Your task to perform on an android device: open app "Fetch Rewards" (install if not already installed) and enter user name: "Westwood@yahoo.com" and password: "qualifying" Image 0: 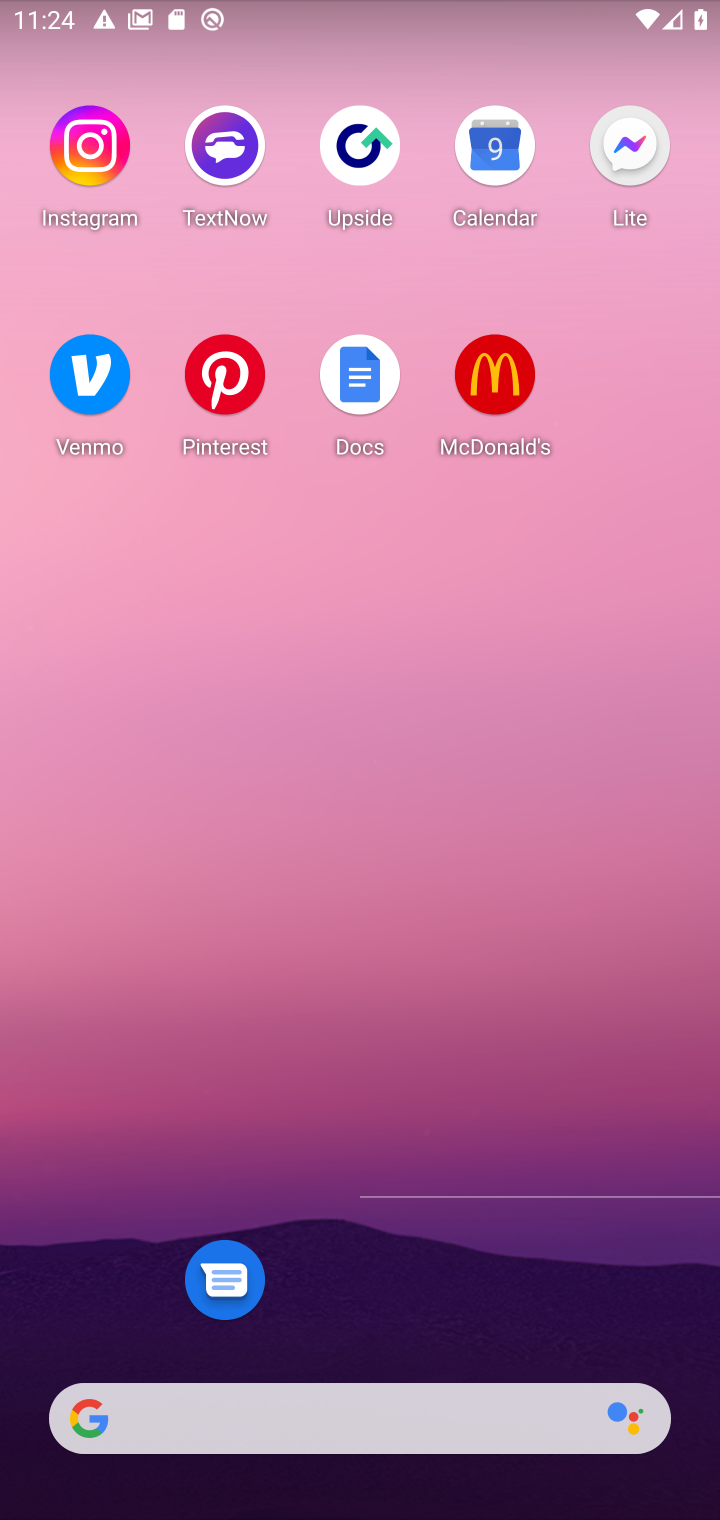
Step 0: drag from (318, 1265) to (329, 89)
Your task to perform on an android device: open app "Fetch Rewards" (install if not already installed) and enter user name: "Westwood@yahoo.com" and password: "qualifying" Image 1: 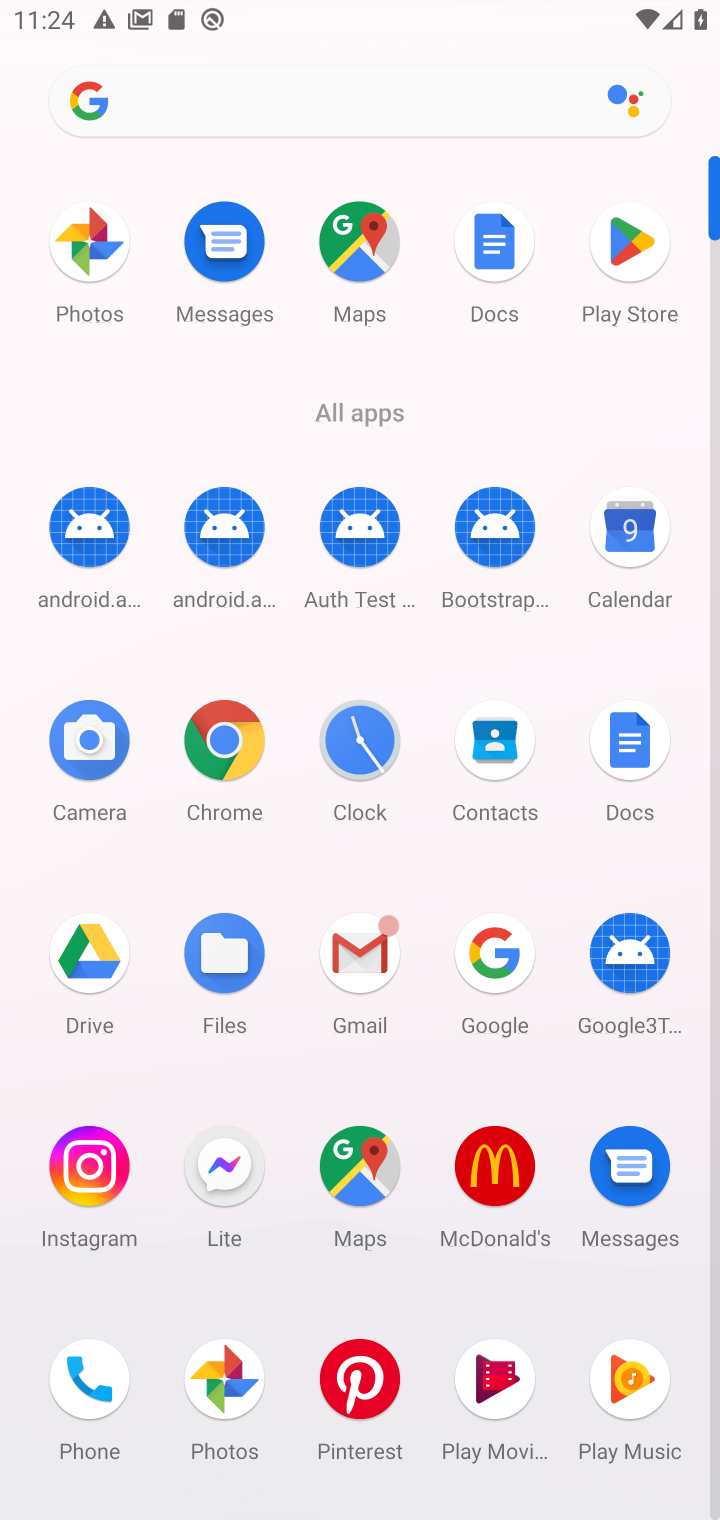
Step 1: click (615, 246)
Your task to perform on an android device: open app "Fetch Rewards" (install if not already installed) and enter user name: "Westwood@yahoo.com" and password: "qualifying" Image 2: 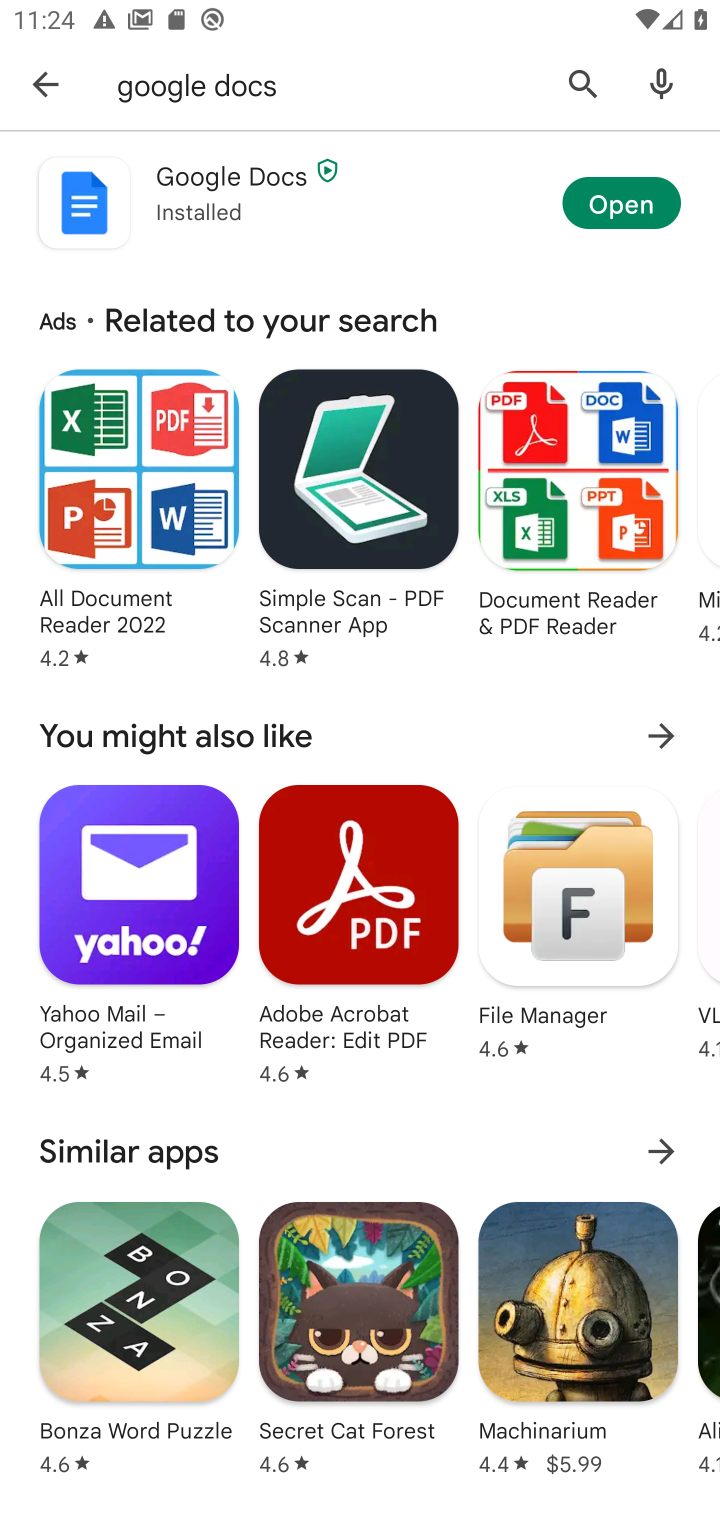
Step 2: click (37, 67)
Your task to perform on an android device: open app "Fetch Rewards" (install if not already installed) and enter user name: "Westwood@yahoo.com" and password: "qualifying" Image 3: 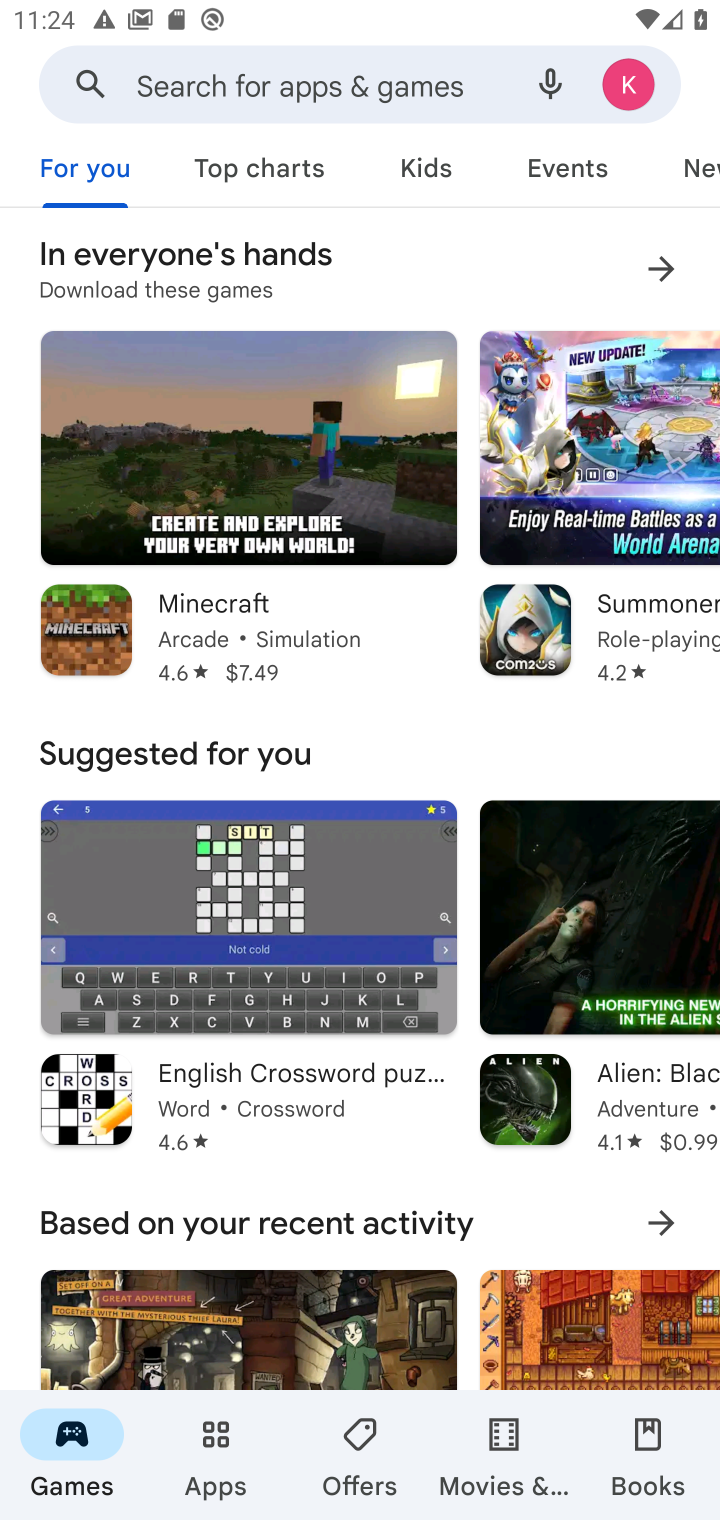
Step 3: click (227, 77)
Your task to perform on an android device: open app "Fetch Rewards" (install if not already installed) and enter user name: "Westwood@yahoo.com" and password: "qualifying" Image 4: 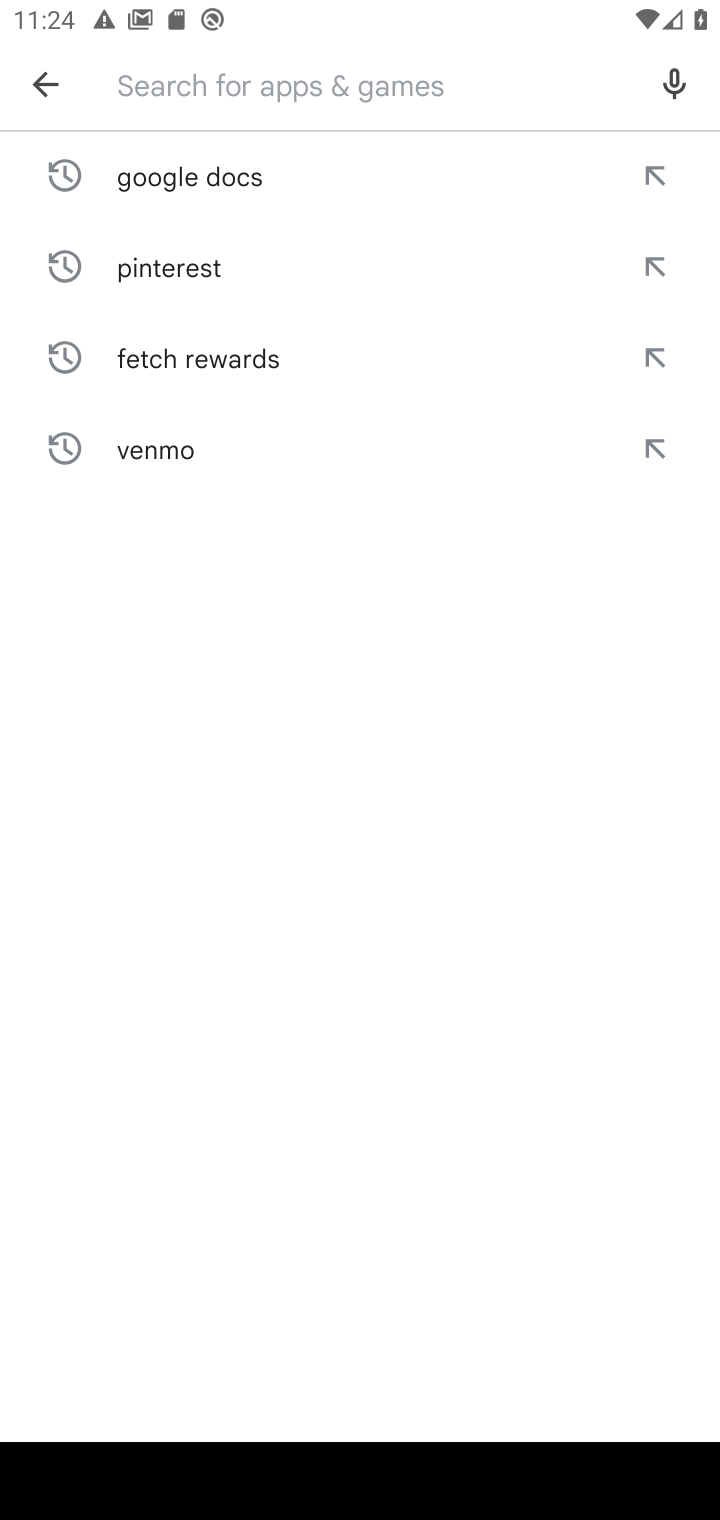
Step 4: type "Fetch Rewards"
Your task to perform on an android device: open app "Fetch Rewards" (install if not already installed) and enter user name: "Westwood@yahoo.com" and password: "qualifying" Image 5: 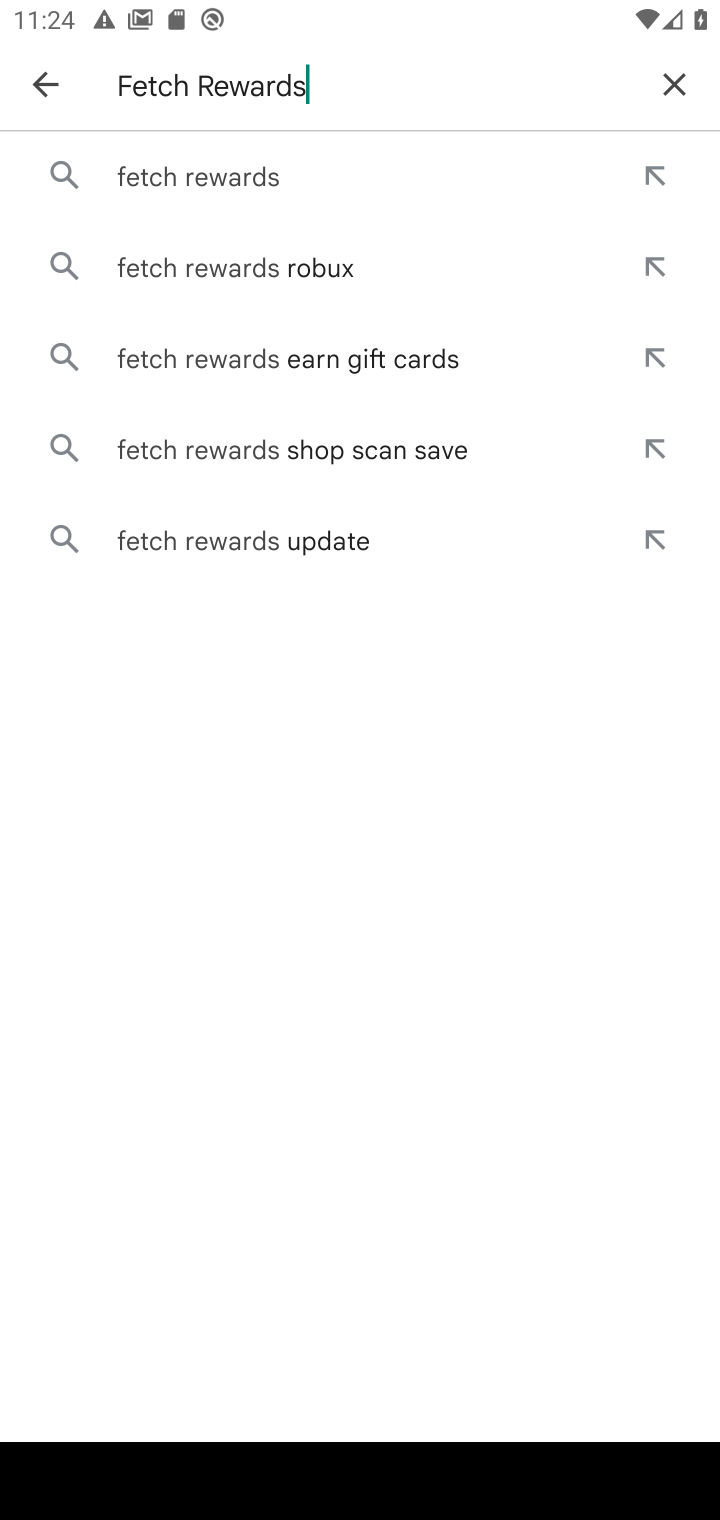
Step 5: type ""
Your task to perform on an android device: open app "Fetch Rewards" (install if not already installed) and enter user name: "Westwood@yahoo.com" and password: "qualifying" Image 6: 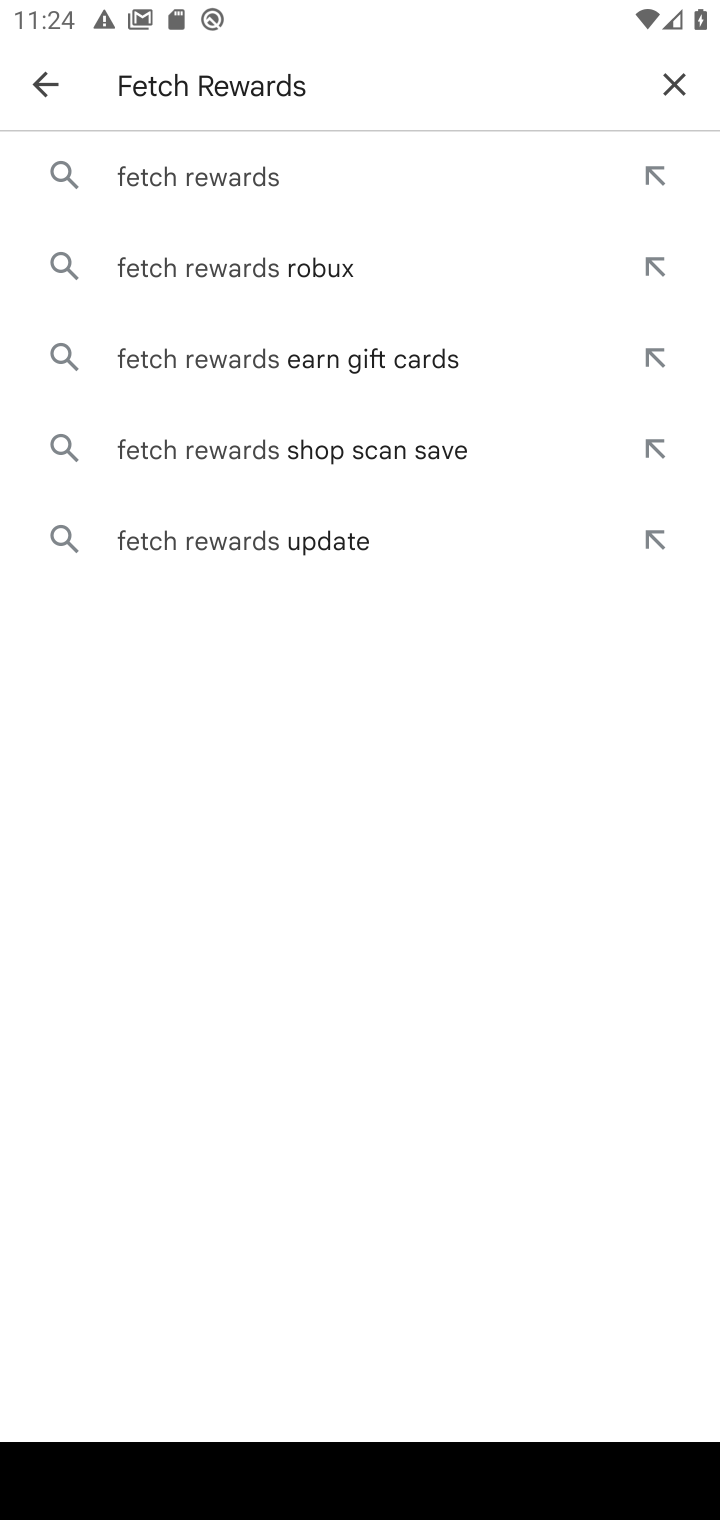
Step 6: click (165, 177)
Your task to perform on an android device: open app "Fetch Rewards" (install if not already installed) and enter user name: "Westwood@yahoo.com" and password: "qualifying" Image 7: 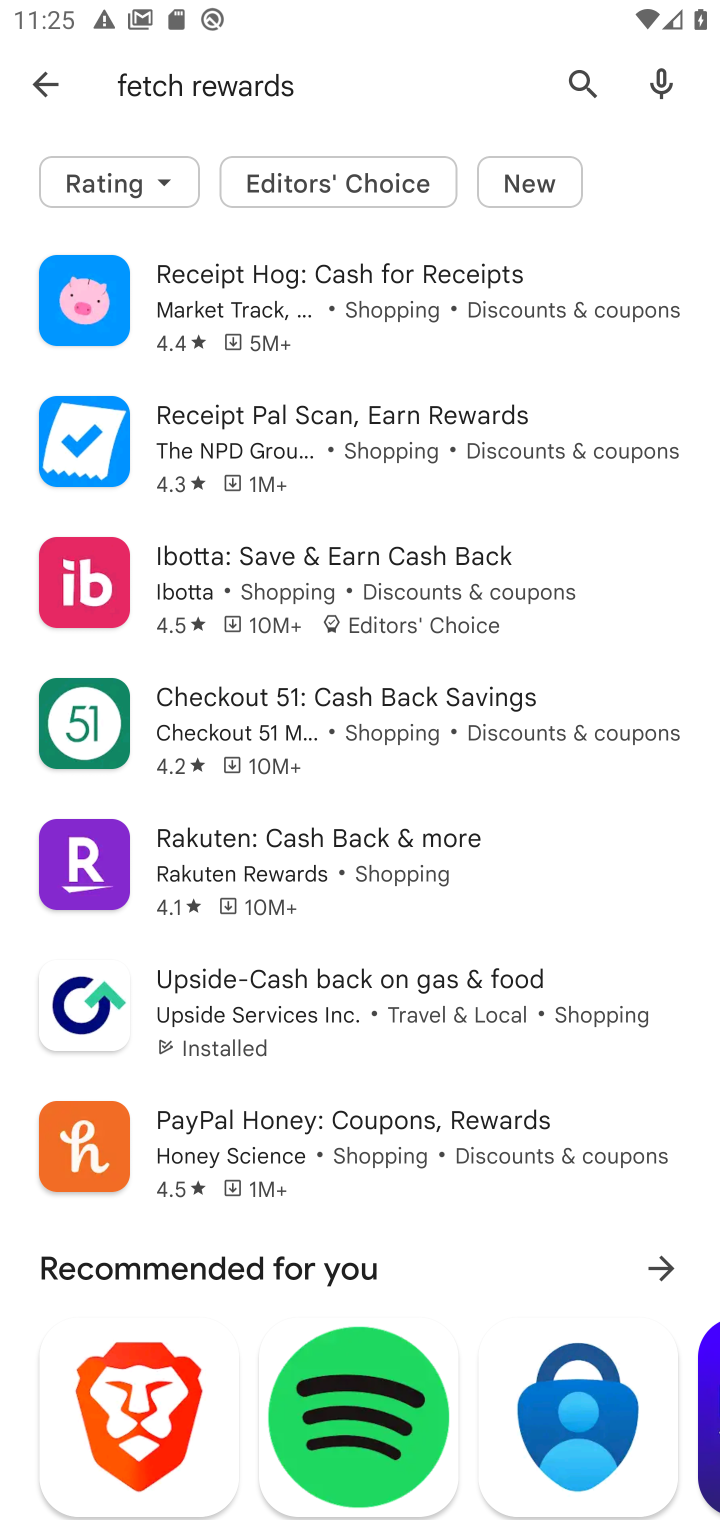
Step 7: task complete